Your task to perform on an android device: Open battery settings Image 0: 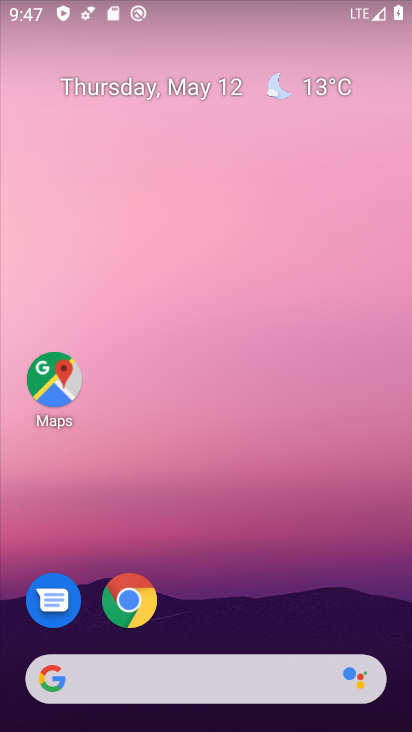
Step 0: drag from (195, 547) to (294, 197)
Your task to perform on an android device: Open battery settings Image 1: 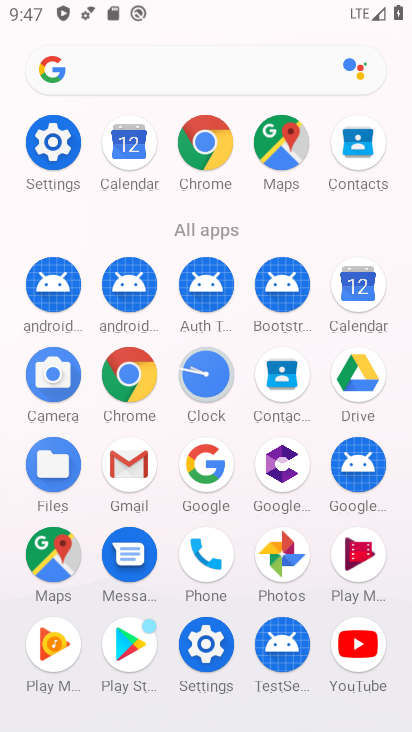
Step 1: click (57, 139)
Your task to perform on an android device: Open battery settings Image 2: 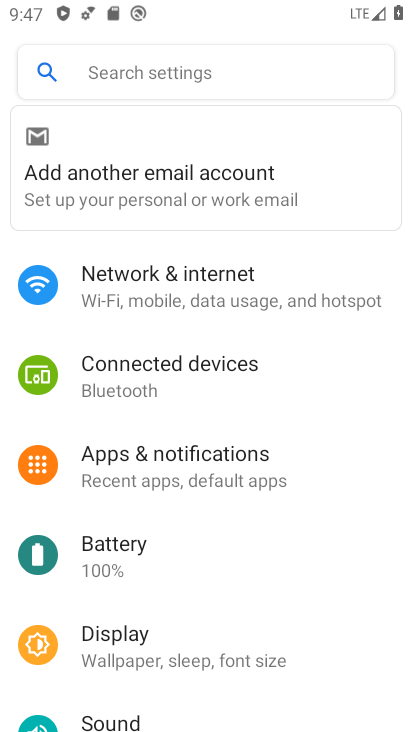
Step 2: click (132, 552)
Your task to perform on an android device: Open battery settings Image 3: 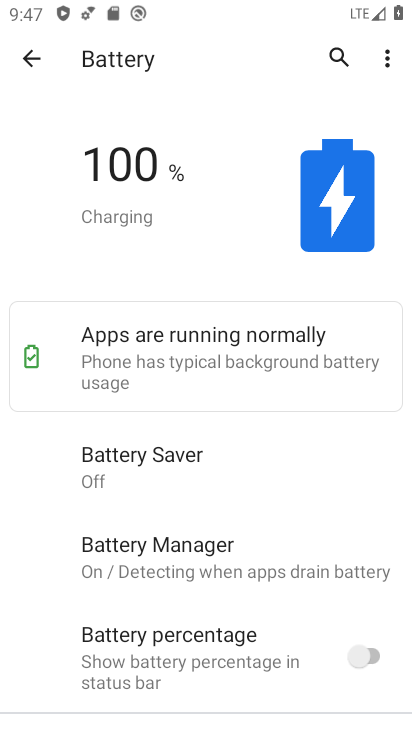
Step 3: task complete